Your task to perform on an android device: Open my contact list Image 0: 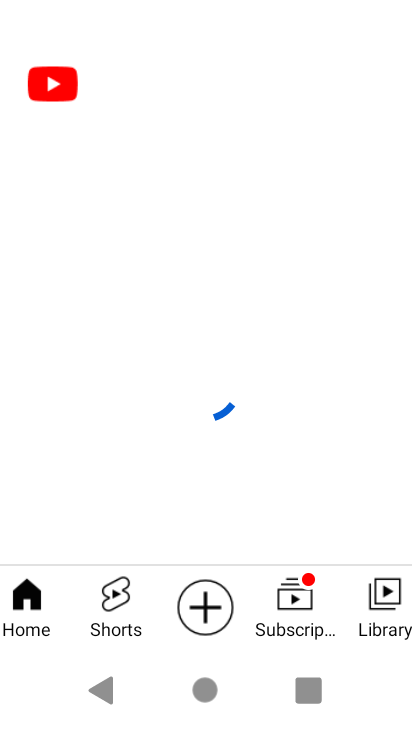
Step 0: click (260, 65)
Your task to perform on an android device: Open my contact list Image 1: 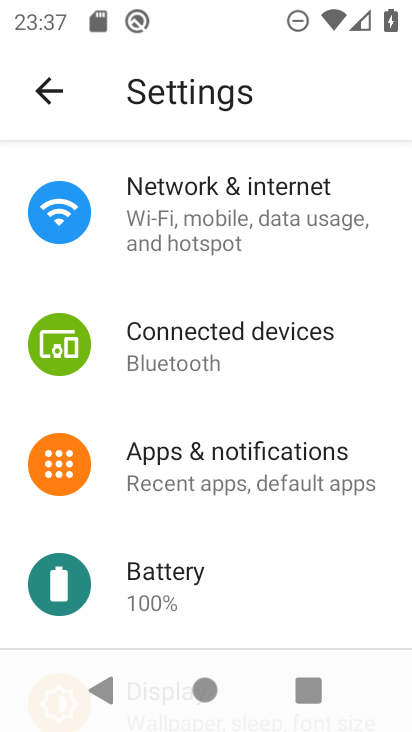
Step 1: press home button
Your task to perform on an android device: Open my contact list Image 2: 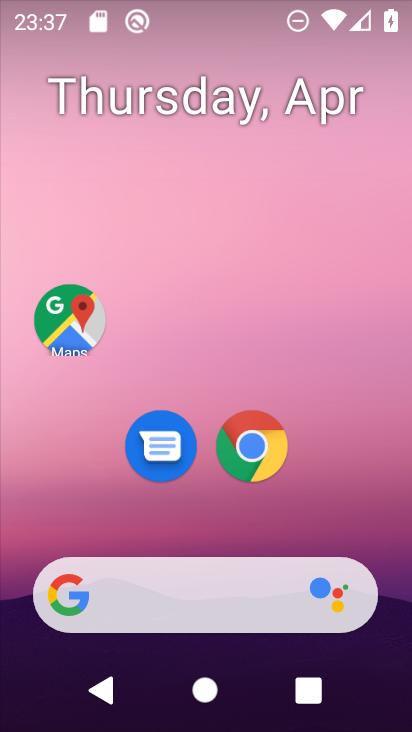
Step 2: drag from (227, 422) to (230, 261)
Your task to perform on an android device: Open my contact list Image 3: 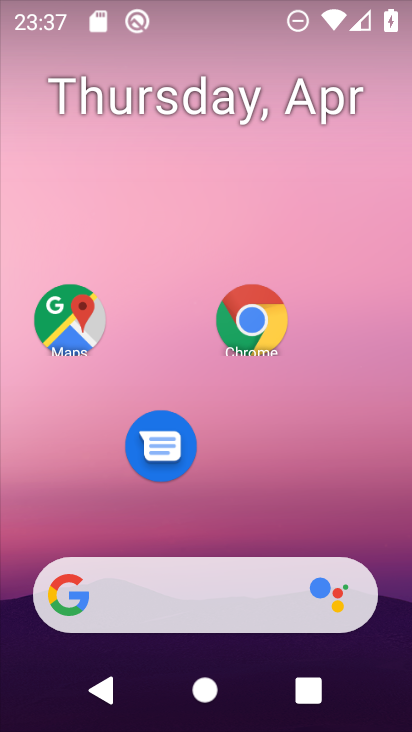
Step 3: drag from (194, 467) to (191, 169)
Your task to perform on an android device: Open my contact list Image 4: 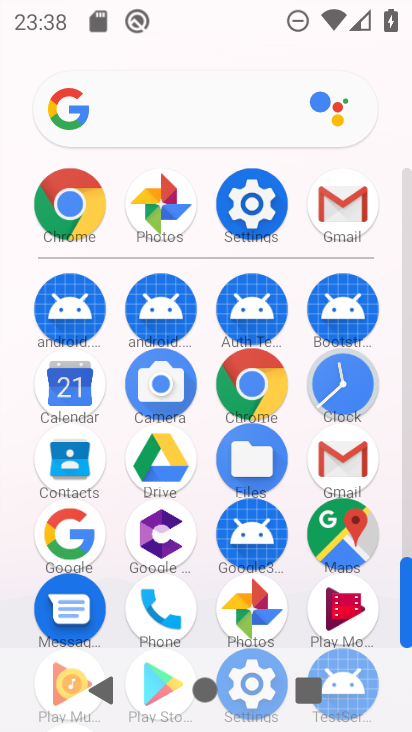
Step 4: click (52, 452)
Your task to perform on an android device: Open my contact list Image 5: 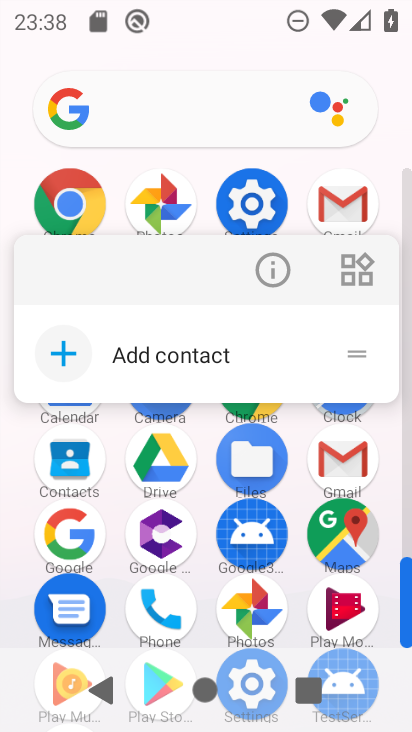
Step 5: click (270, 279)
Your task to perform on an android device: Open my contact list Image 6: 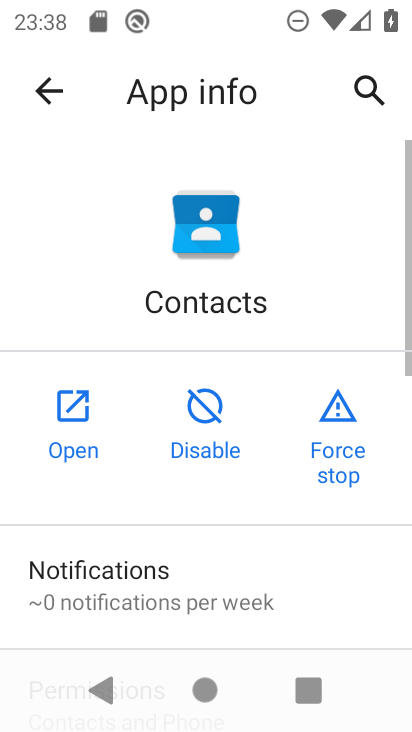
Step 6: click (81, 422)
Your task to perform on an android device: Open my contact list Image 7: 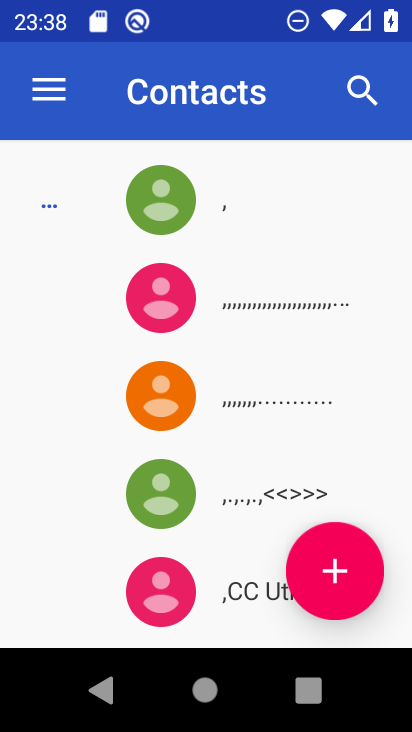
Step 7: task complete